Your task to perform on an android device: Add "macbook" to the cart on ebay.com Image 0: 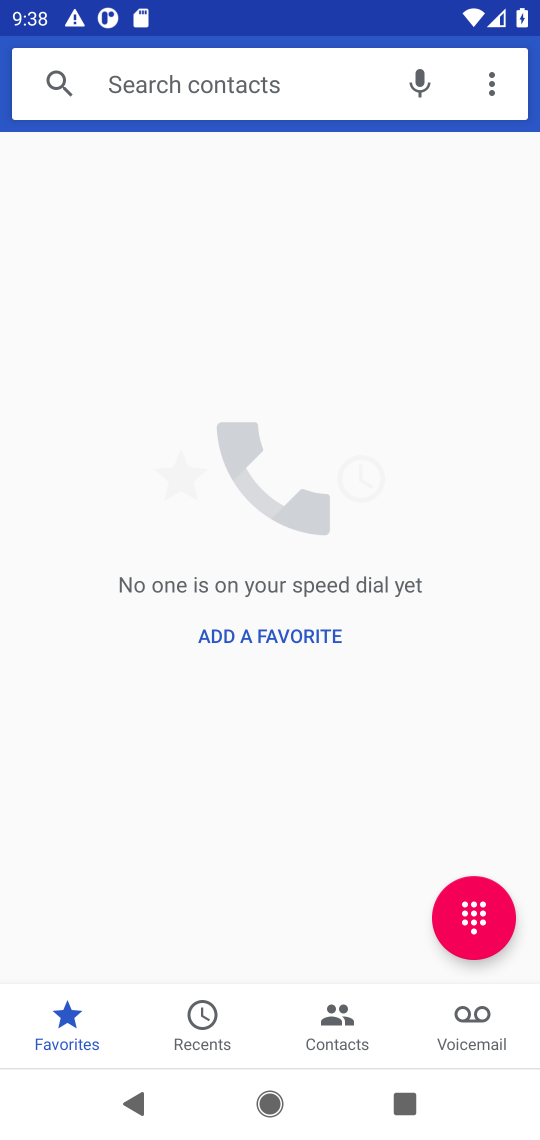
Step 0: press home button
Your task to perform on an android device: Add "macbook" to the cart on ebay.com Image 1: 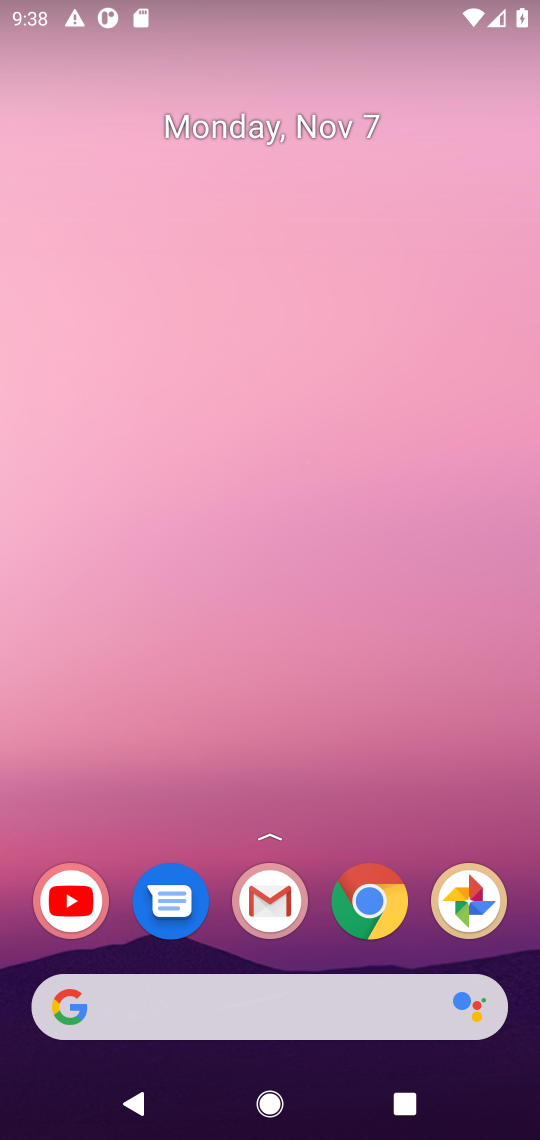
Step 1: click (382, 907)
Your task to perform on an android device: Add "macbook" to the cart on ebay.com Image 2: 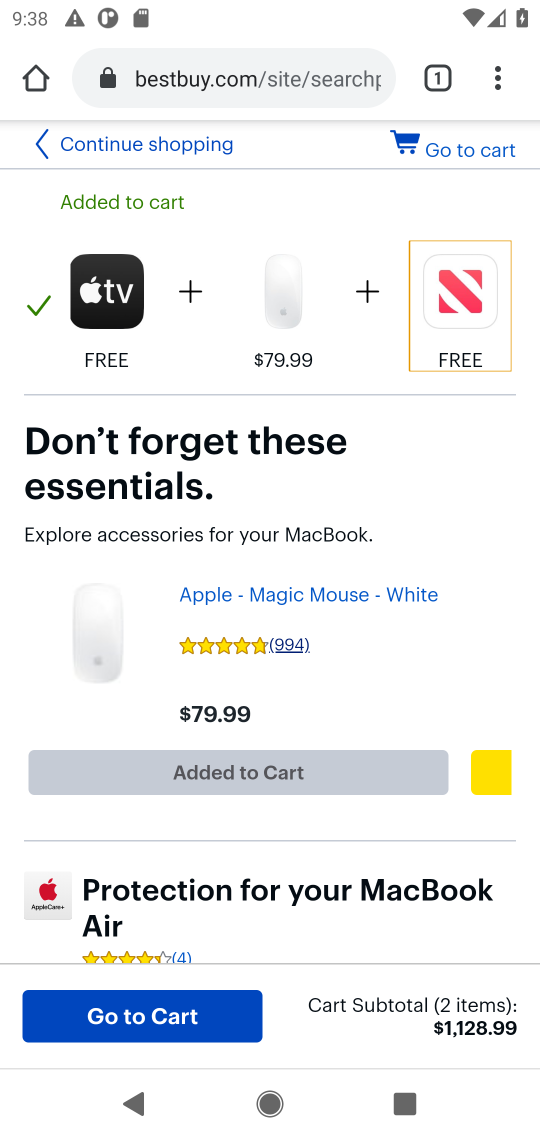
Step 2: click (255, 90)
Your task to perform on an android device: Add "macbook" to the cart on ebay.com Image 3: 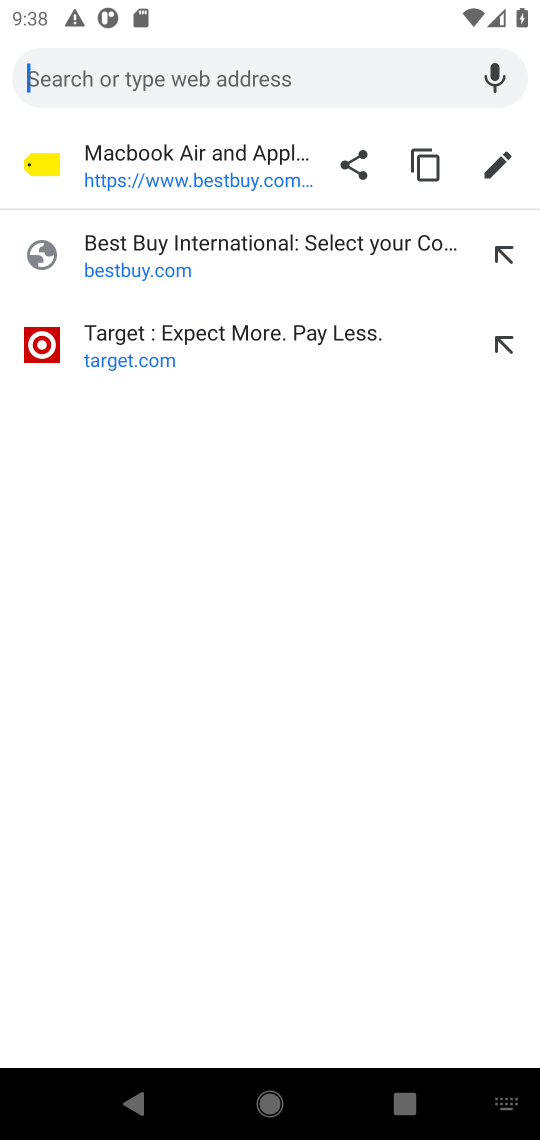
Step 3: type "ebay.com"
Your task to perform on an android device: Add "macbook" to the cart on ebay.com Image 4: 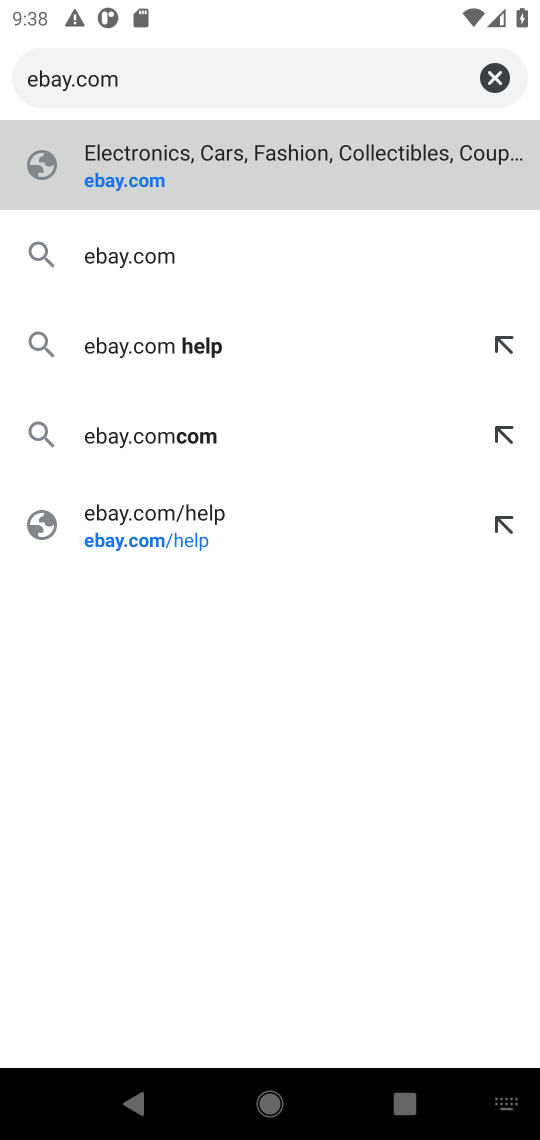
Step 4: click (113, 188)
Your task to perform on an android device: Add "macbook" to the cart on ebay.com Image 5: 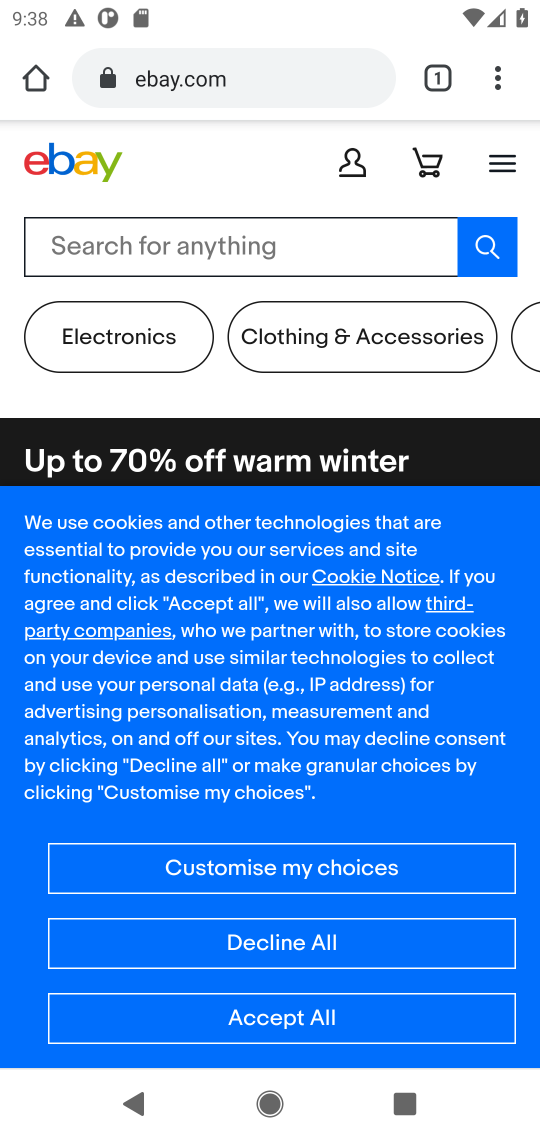
Step 5: click (239, 241)
Your task to perform on an android device: Add "macbook" to the cart on ebay.com Image 6: 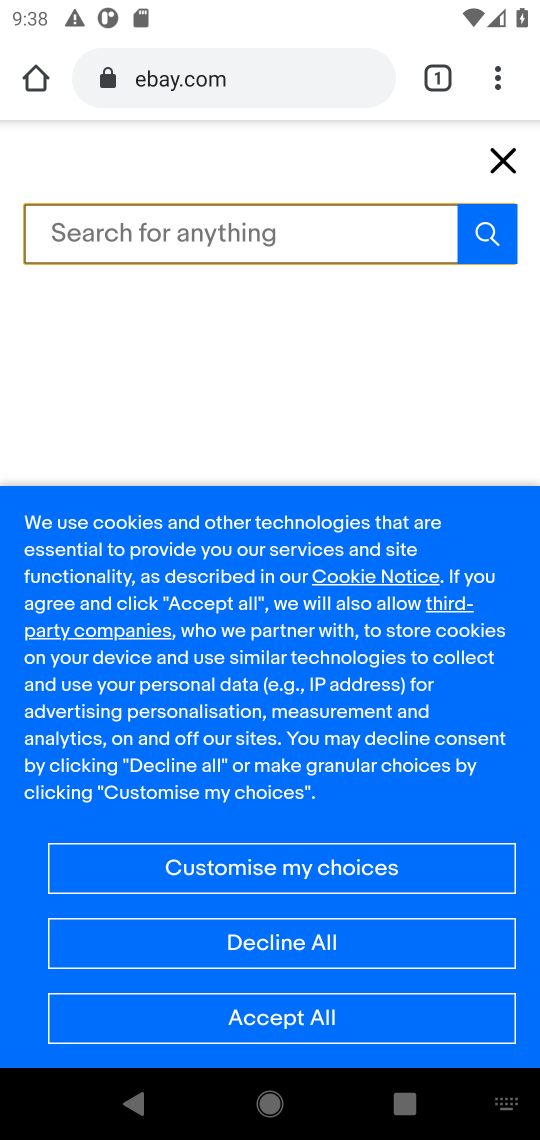
Step 6: type "macbook"
Your task to perform on an android device: Add "macbook" to the cart on ebay.com Image 7: 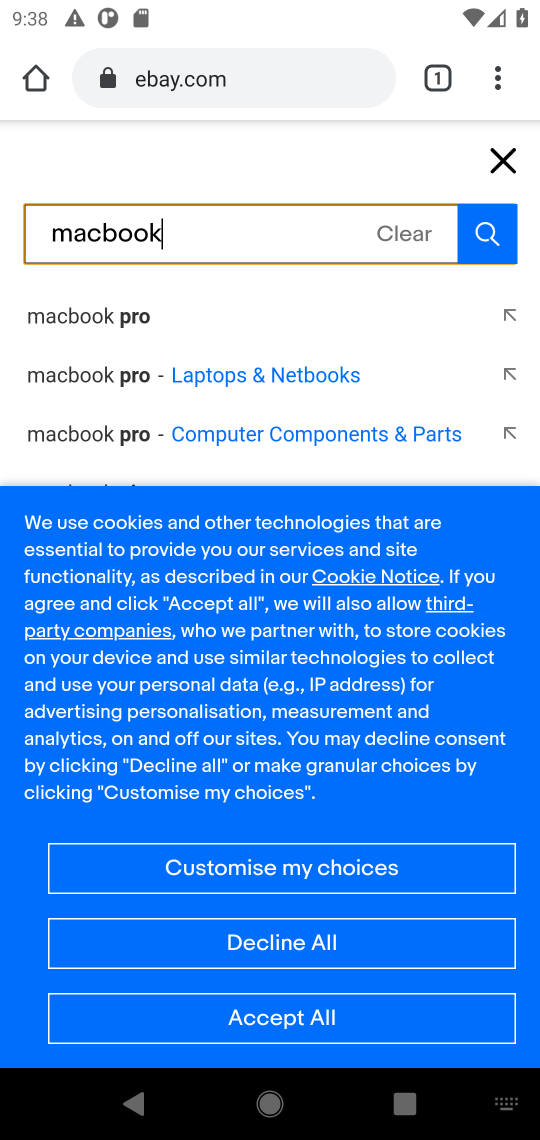
Step 7: press enter
Your task to perform on an android device: Add "macbook" to the cart on ebay.com Image 8: 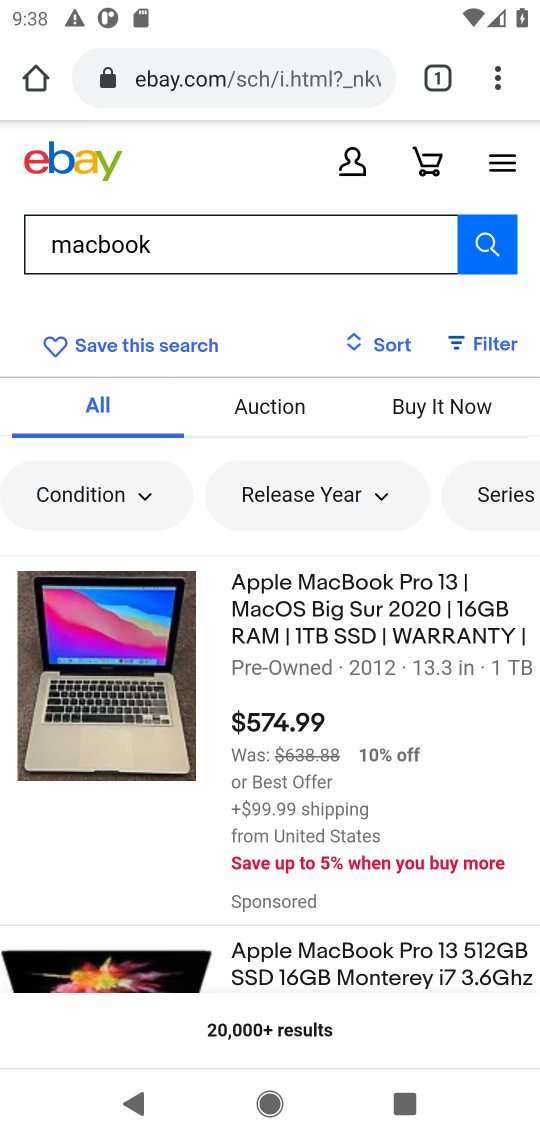
Step 8: click (311, 609)
Your task to perform on an android device: Add "macbook" to the cart on ebay.com Image 9: 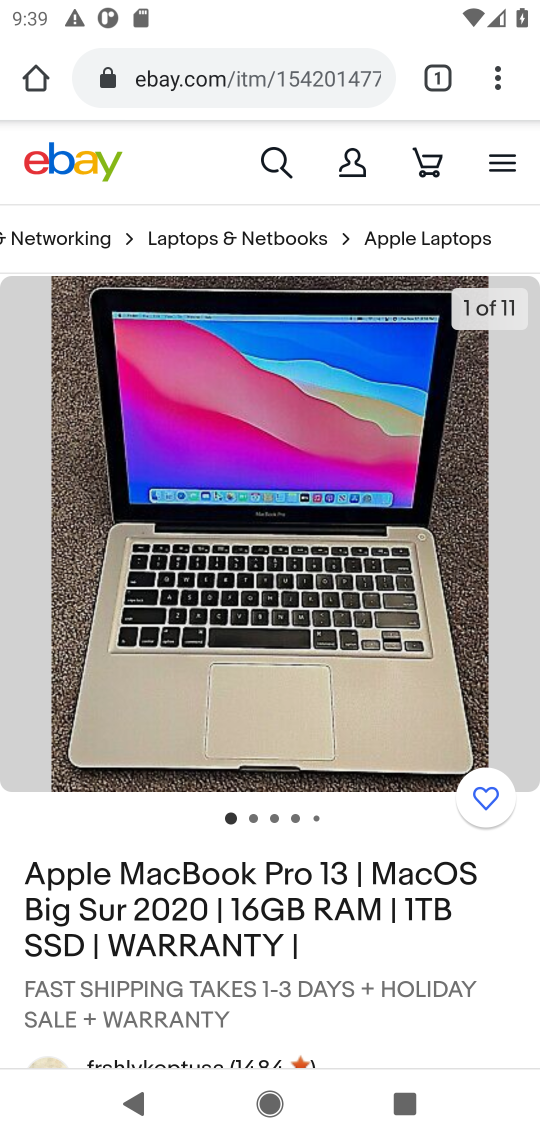
Step 9: drag from (261, 948) to (156, 285)
Your task to perform on an android device: Add "macbook" to the cart on ebay.com Image 10: 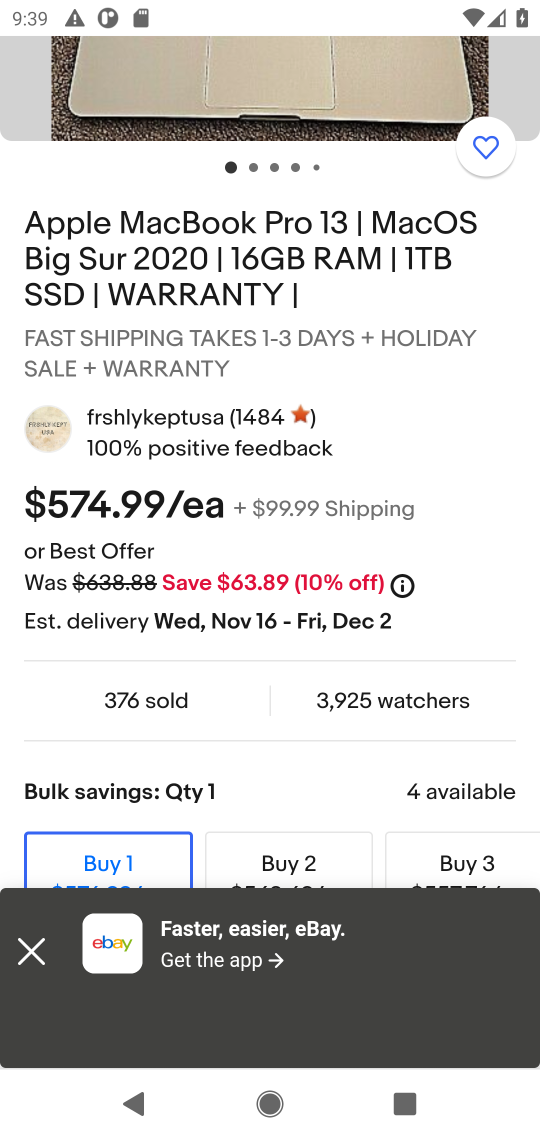
Step 10: drag from (240, 695) to (106, 95)
Your task to perform on an android device: Add "macbook" to the cart on ebay.com Image 11: 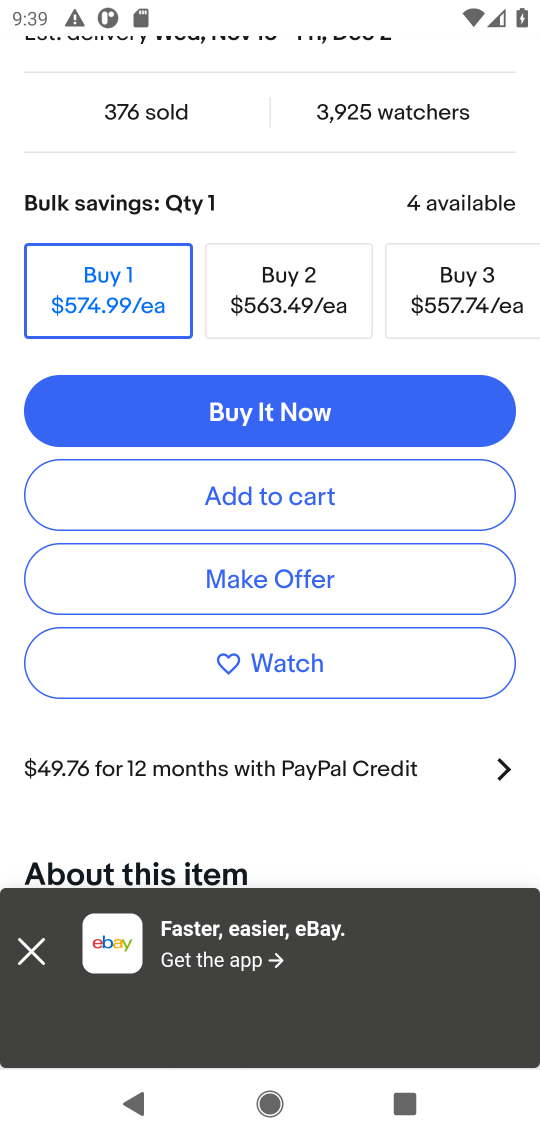
Step 11: click (283, 504)
Your task to perform on an android device: Add "macbook" to the cart on ebay.com Image 12: 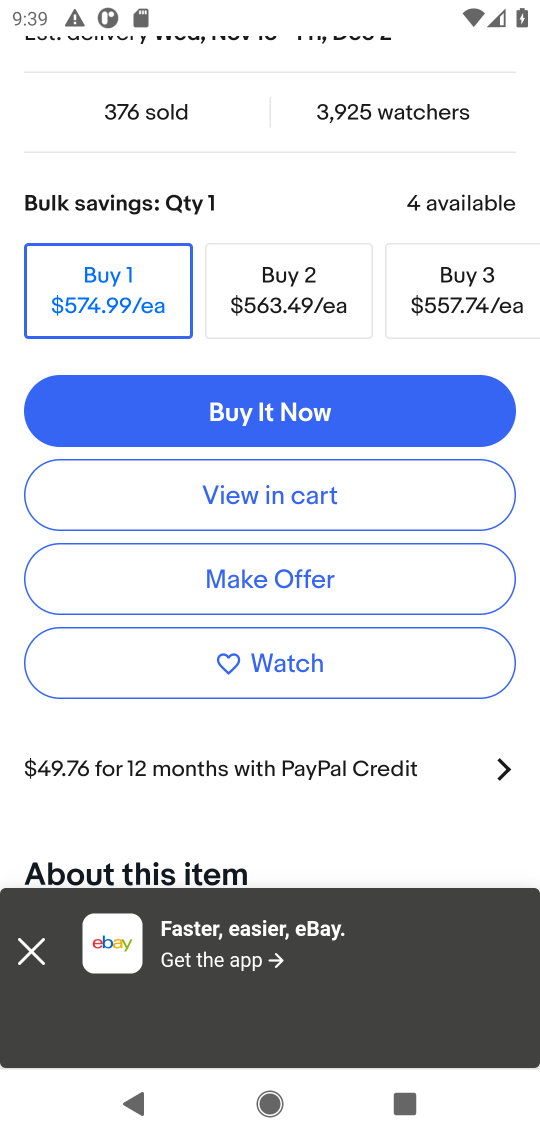
Step 12: task complete